Your task to perform on an android device: Check the news Image 0: 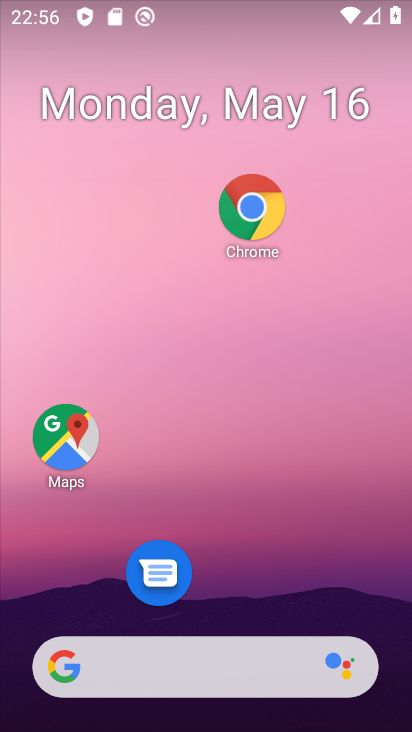
Step 0: drag from (218, 676) to (301, 219)
Your task to perform on an android device: Check the news Image 1: 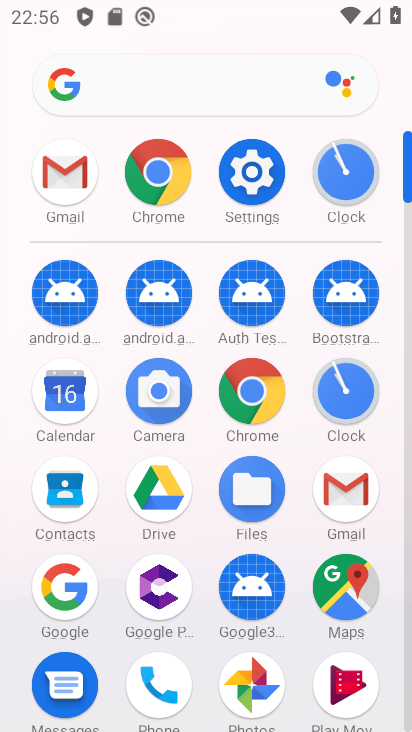
Step 1: click (259, 379)
Your task to perform on an android device: Check the news Image 2: 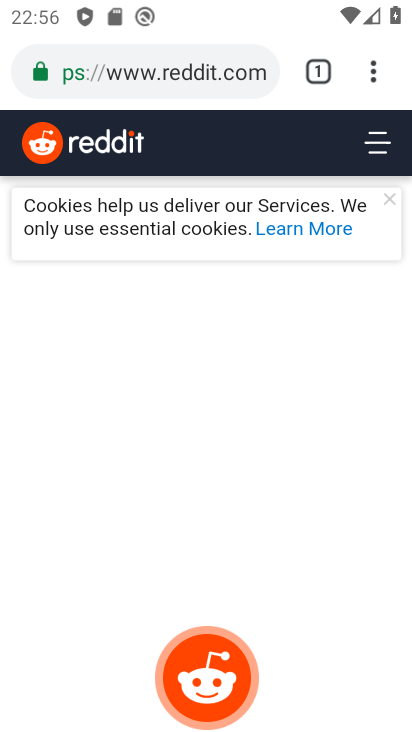
Step 2: click (245, 68)
Your task to perform on an android device: Check the news Image 3: 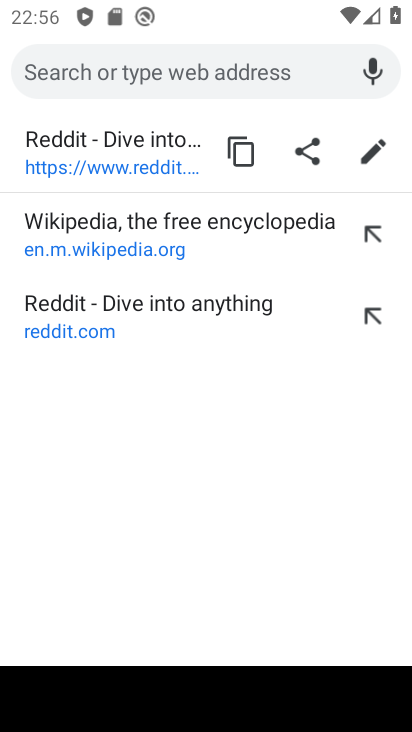
Step 3: type "check the news"
Your task to perform on an android device: Check the news Image 4: 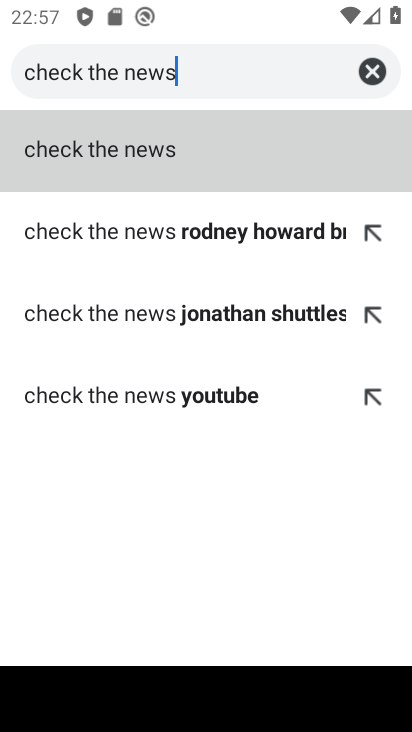
Step 4: click (156, 105)
Your task to perform on an android device: Check the news Image 5: 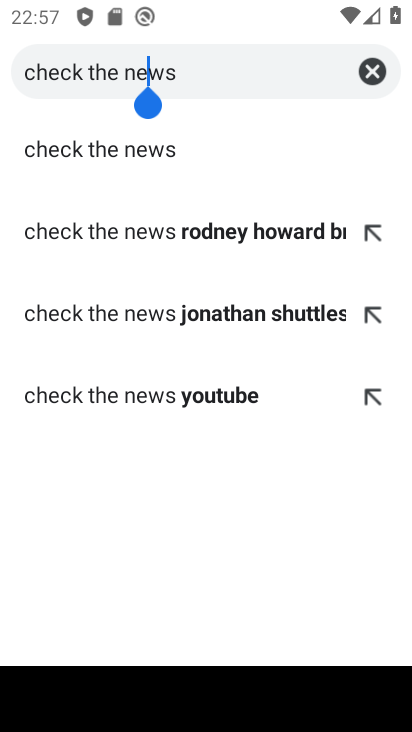
Step 5: click (124, 156)
Your task to perform on an android device: Check the news Image 6: 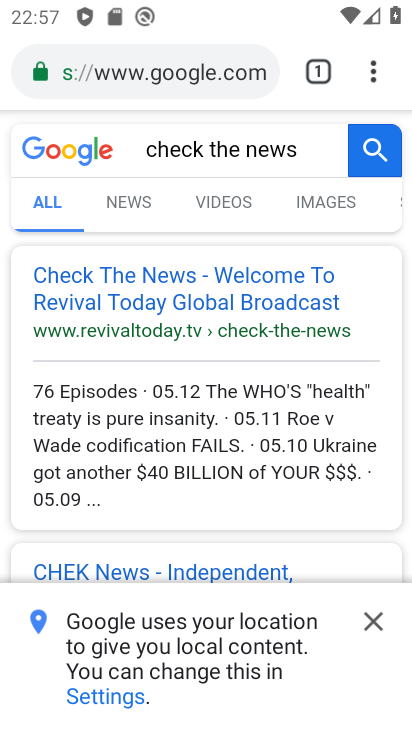
Step 6: task complete